Your task to perform on an android device: Clear the shopping cart on target.com. Add "logitech g502" to the cart on target.com Image 0: 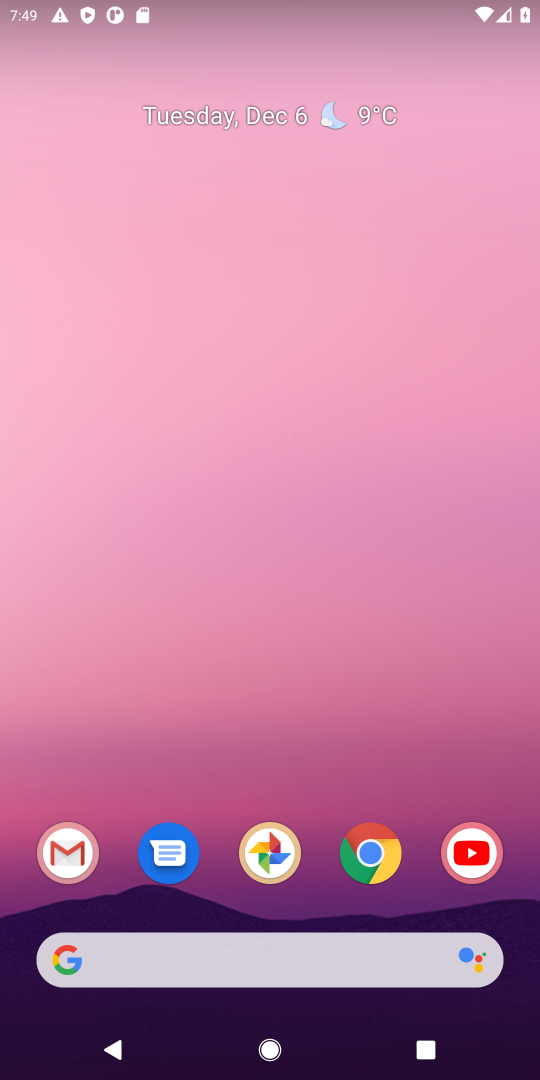
Step 0: click (372, 857)
Your task to perform on an android device: Clear the shopping cart on target.com. Add "logitech g502" to the cart on target.com Image 1: 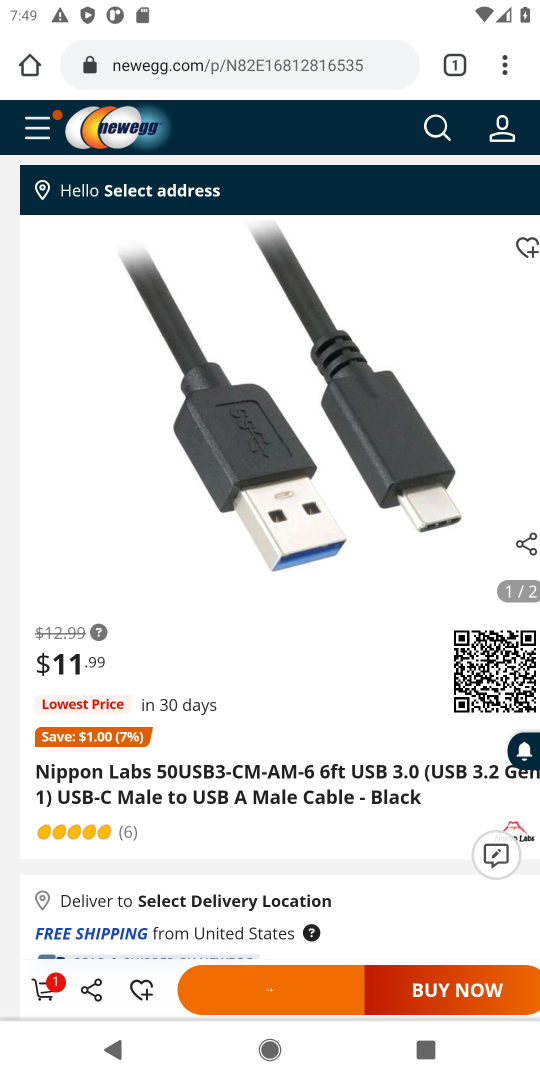
Step 1: click (172, 64)
Your task to perform on an android device: Clear the shopping cart on target.com. Add "logitech g502" to the cart on target.com Image 2: 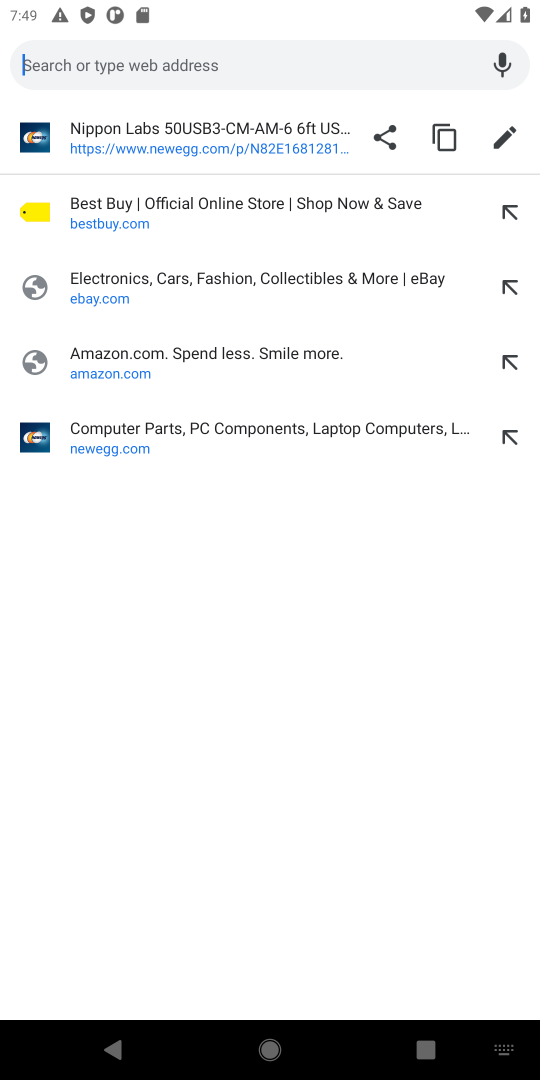
Step 2: type "target.com"
Your task to perform on an android device: Clear the shopping cart on target.com. Add "logitech g502" to the cart on target.com Image 3: 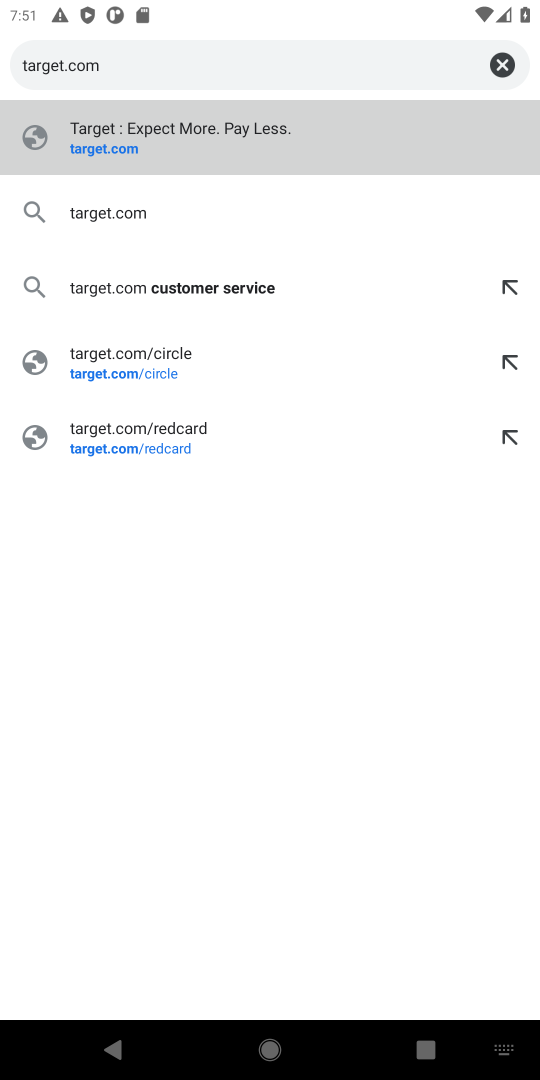
Step 3: click (123, 146)
Your task to perform on an android device: Clear the shopping cart on target.com. Add "logitech g502" to the cart on target.com Image 4: 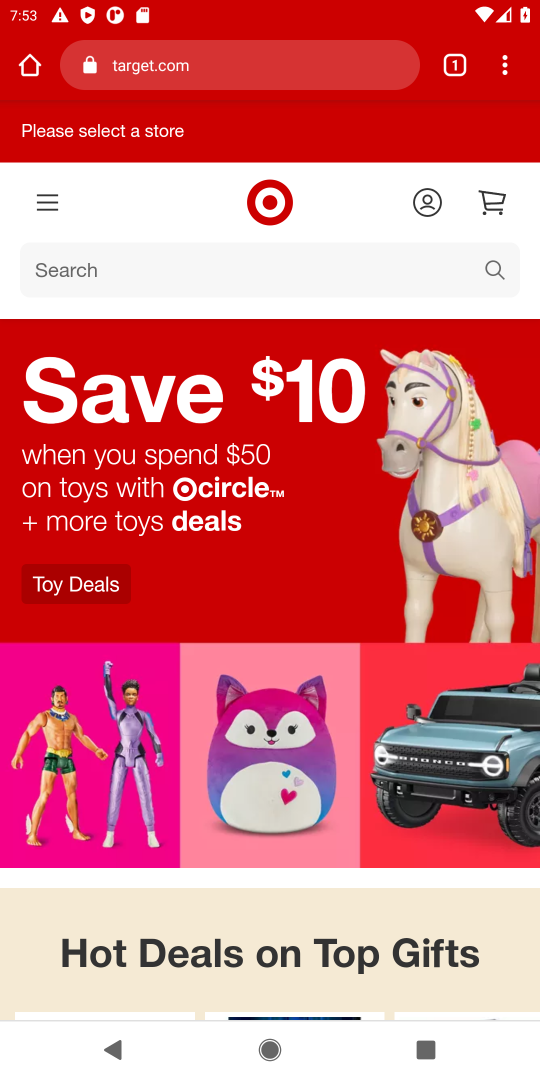
Step 4: click (493, 266)
Your task to perform on an android device: Clear the shopping cart on target.com. Add "logitech g502" to the cart on target.com Image 5: 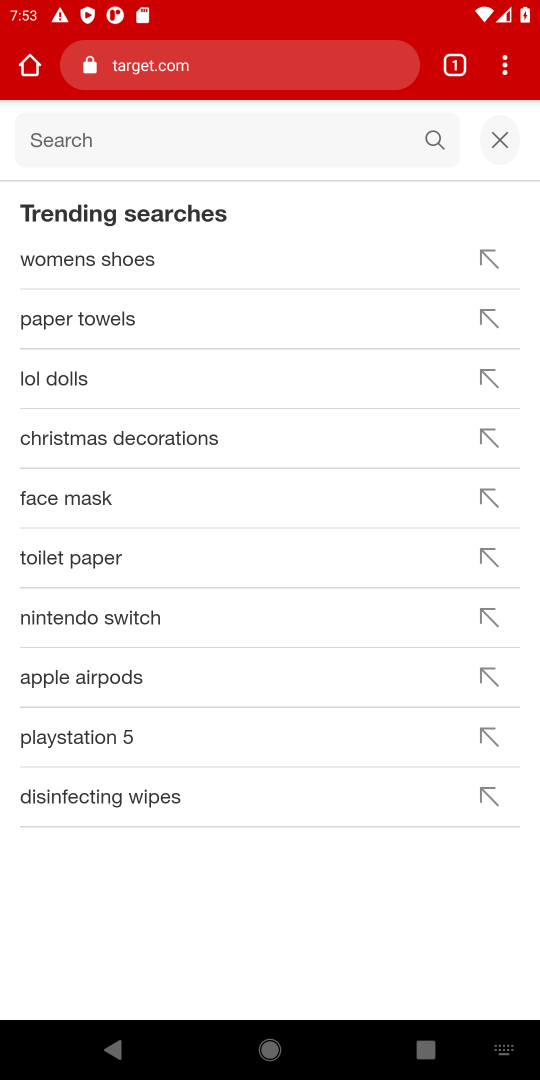
Step 5: type "logitech g502"
Your task to perform on an android device: Clear the shopping cart on target.com. Add "logitech g502" to the cart on target.com Image 6: 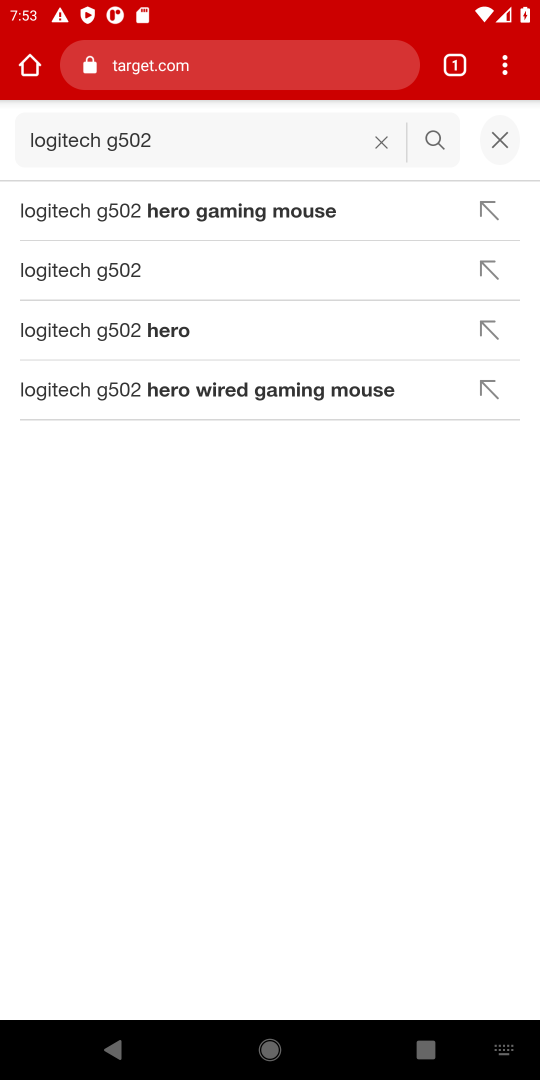
Step 6: click (153, 212)
Your task to perform on an android device: Clear the shopping cart on target.com. Add "logitech g502" to the cart on target.com Image 7: 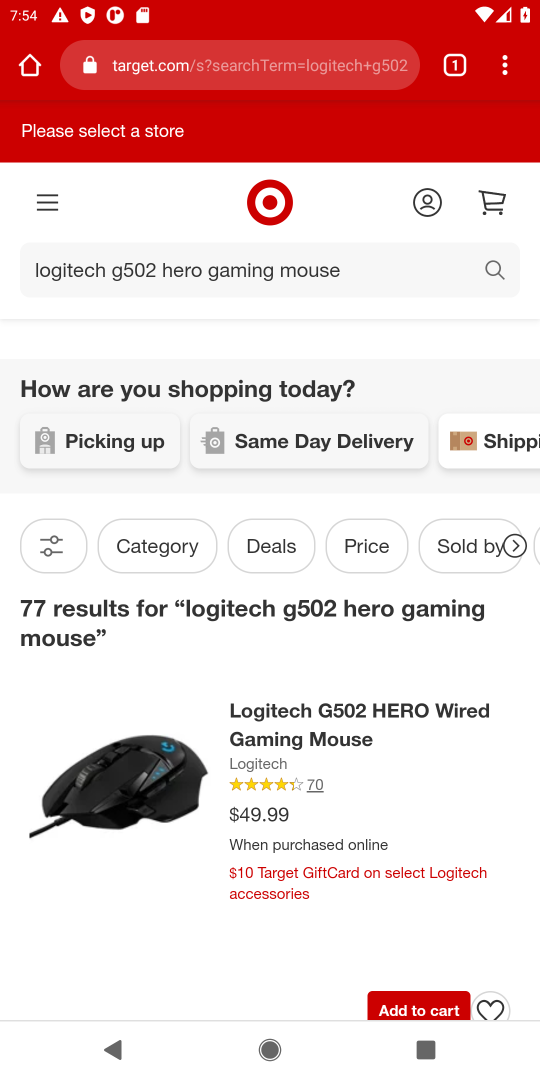
Step 7: click (368, 809)
Your task to perform on an android device: Clear the shopping cart on target.com. Add "logitech g502" to the cart on target.com Image 8: 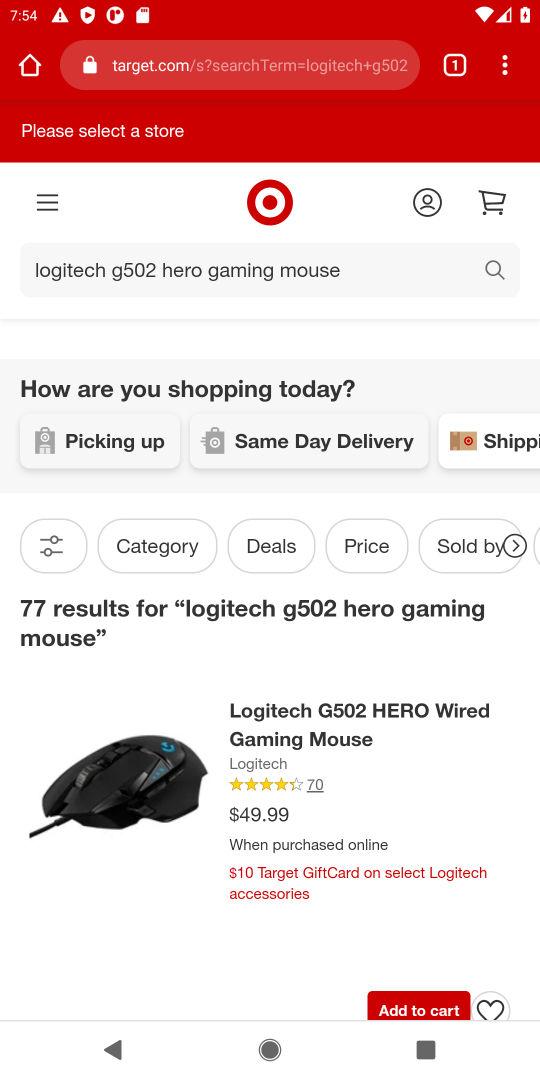
Step 8: click (398, 1005)
Your task to perform on an android device: Clear the shopping cart on target.com. Add "logitech g502" to the cart on target.com Image 9: 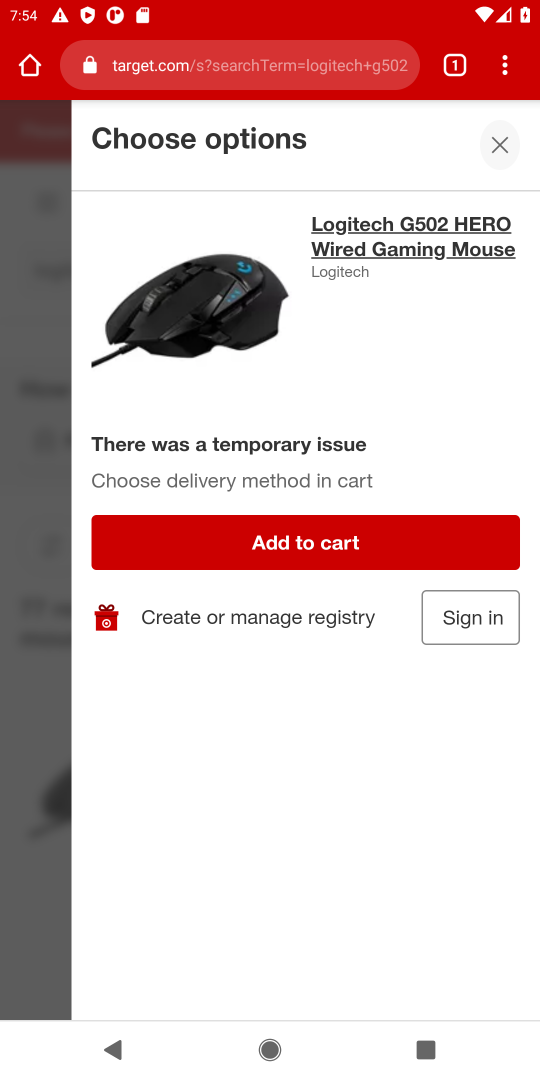
Step 9: click (302, 543)
Your task to perform on an android device: Clear the shopping cart on target.com. Add "logitech g502" to the cart on target.com Image 10: 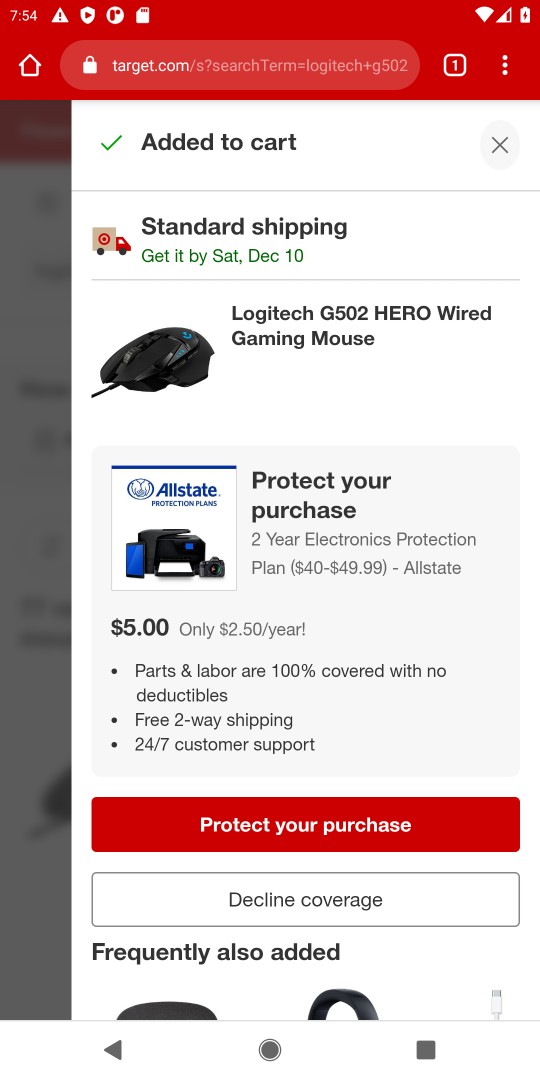
Step 10: task complete